Your task to perform on an android device: Go to privacy settings Image 0: 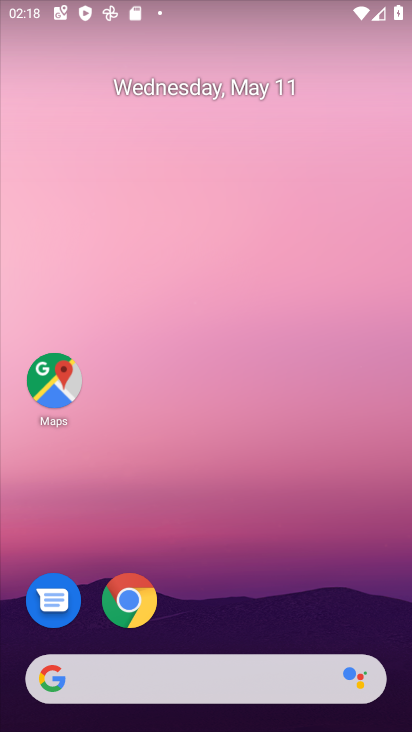
Step 0: drag from (203, 719) to (246, 235)
Your task to perform on an android device: Go to privacy settings Image 1: 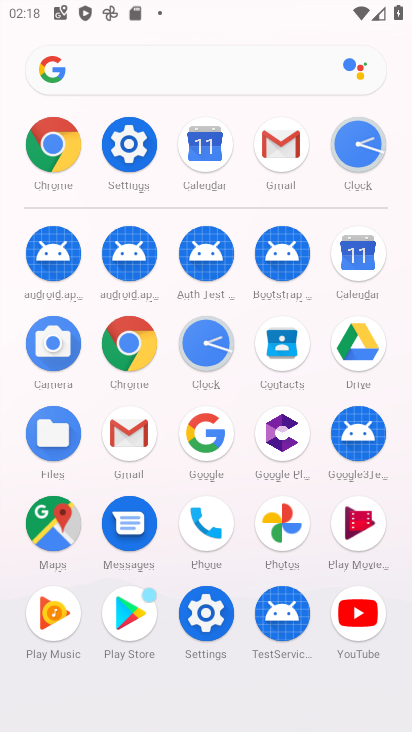
Step 1: click (130, 145)
Your task to perform on an android device: Go to privacy settings Image 2: 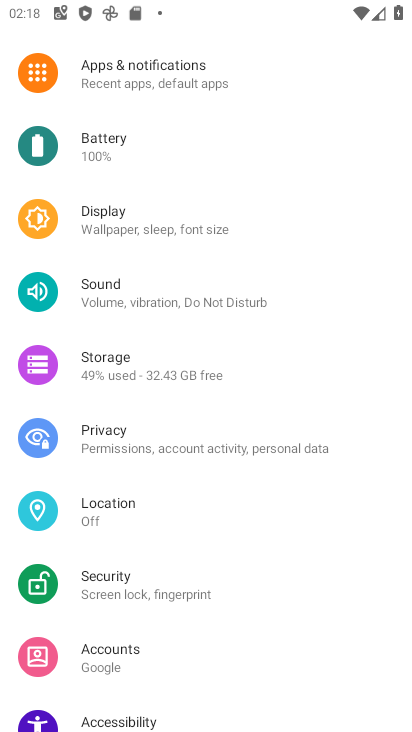
Step 2: click (161, 436)
Your task to perform on an android device: Go to privacy settings Image 3: 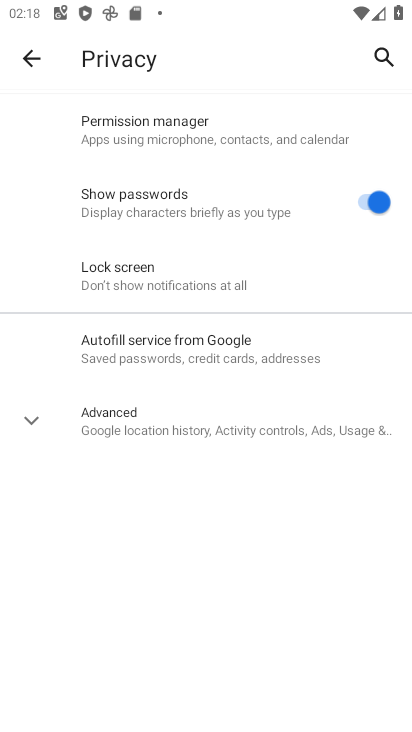
Step 3: task complete